Your task to perform on an android device: toggle airplane mode Image 0: 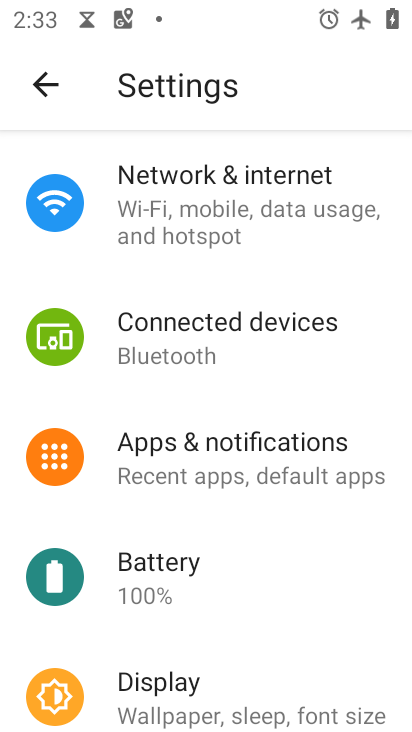
Step 0: click (259, 224)
Your task to perform on an android device: toggle airplane mode Image 1: 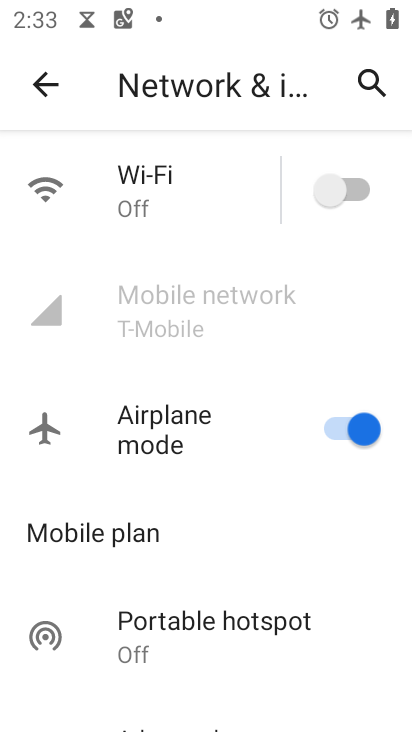
Step 1: click (337, 426)
Your task to perform on an android device: toggle airplane mode Image 2: 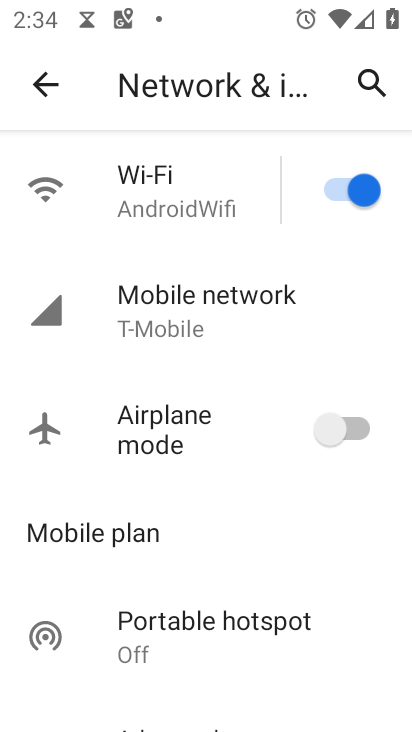
Step 2: task complete